Your task to perform on an android device: install app "Facebook Messenger" Image 0: 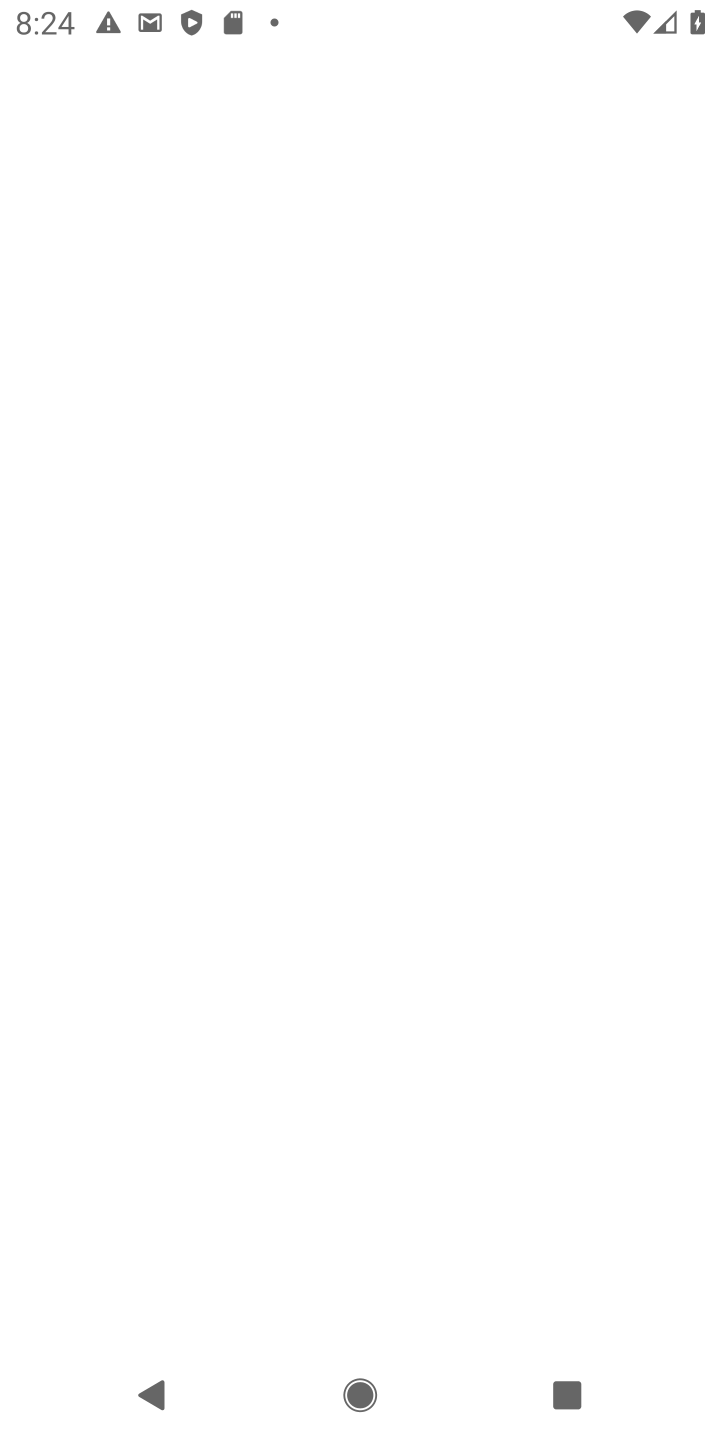
Step 0: press home button
Your task to perform on an android device: install app "Facebook Messenger" Image 1: 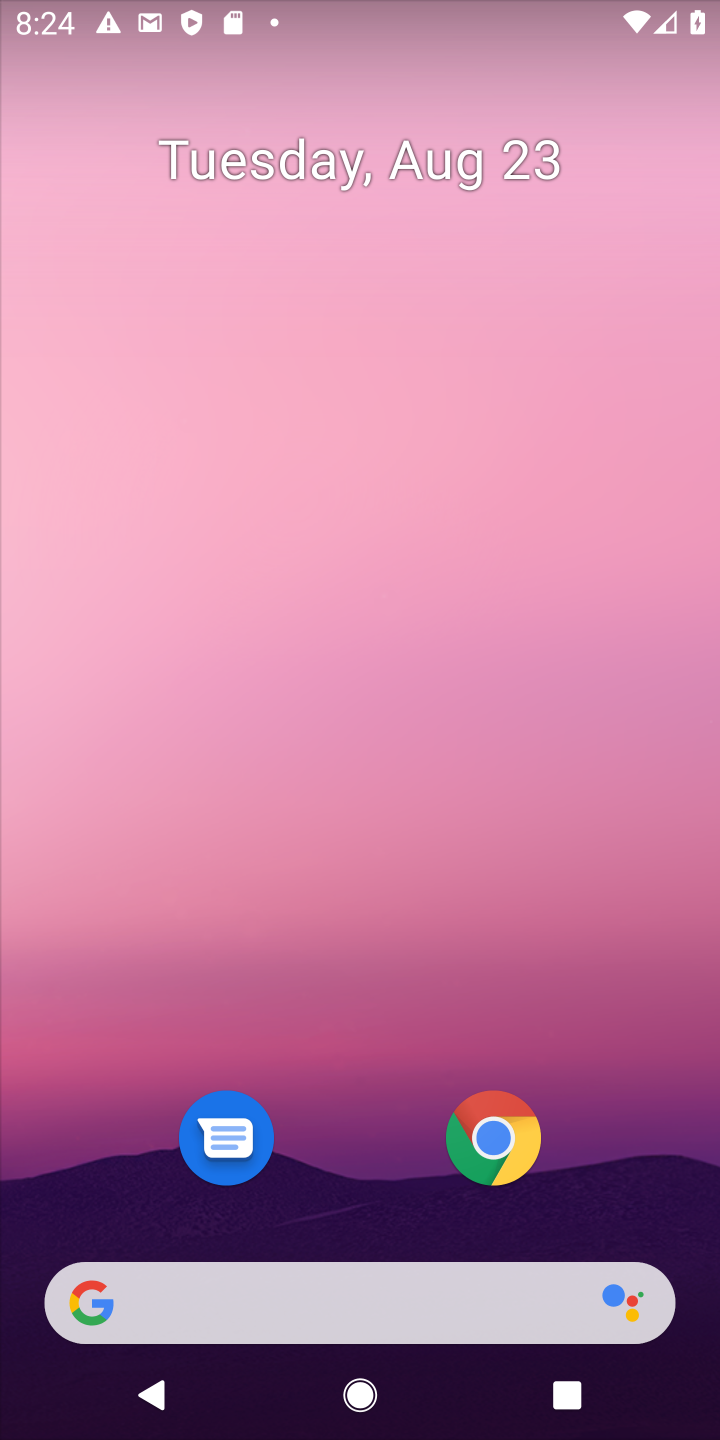
Step 1: drag from (613, 1083) to (647, 113)
Your task to perform on an android device: install app "Facebook Messenger" Image 2: 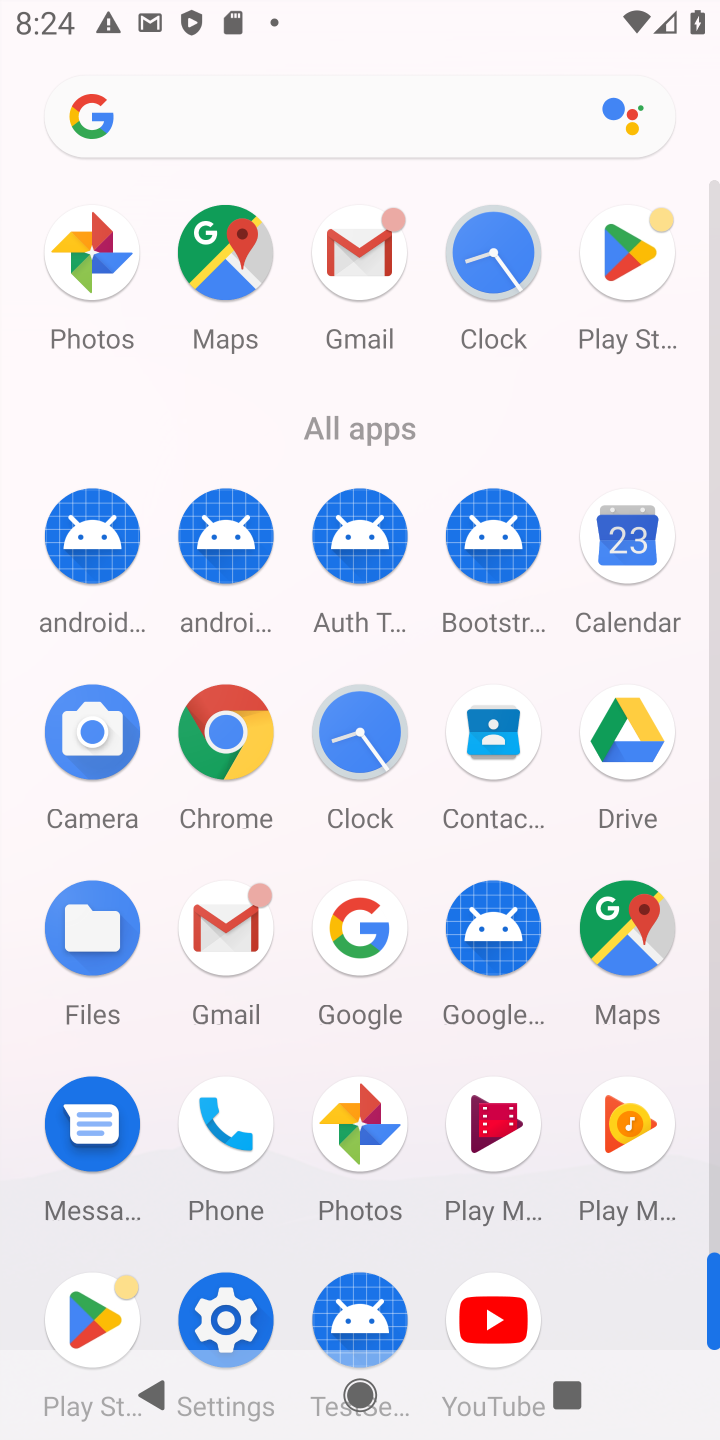
Step 2: click (625, 242)
Your task to perform on an android device: install app "Facebook Messenger" Image 3: 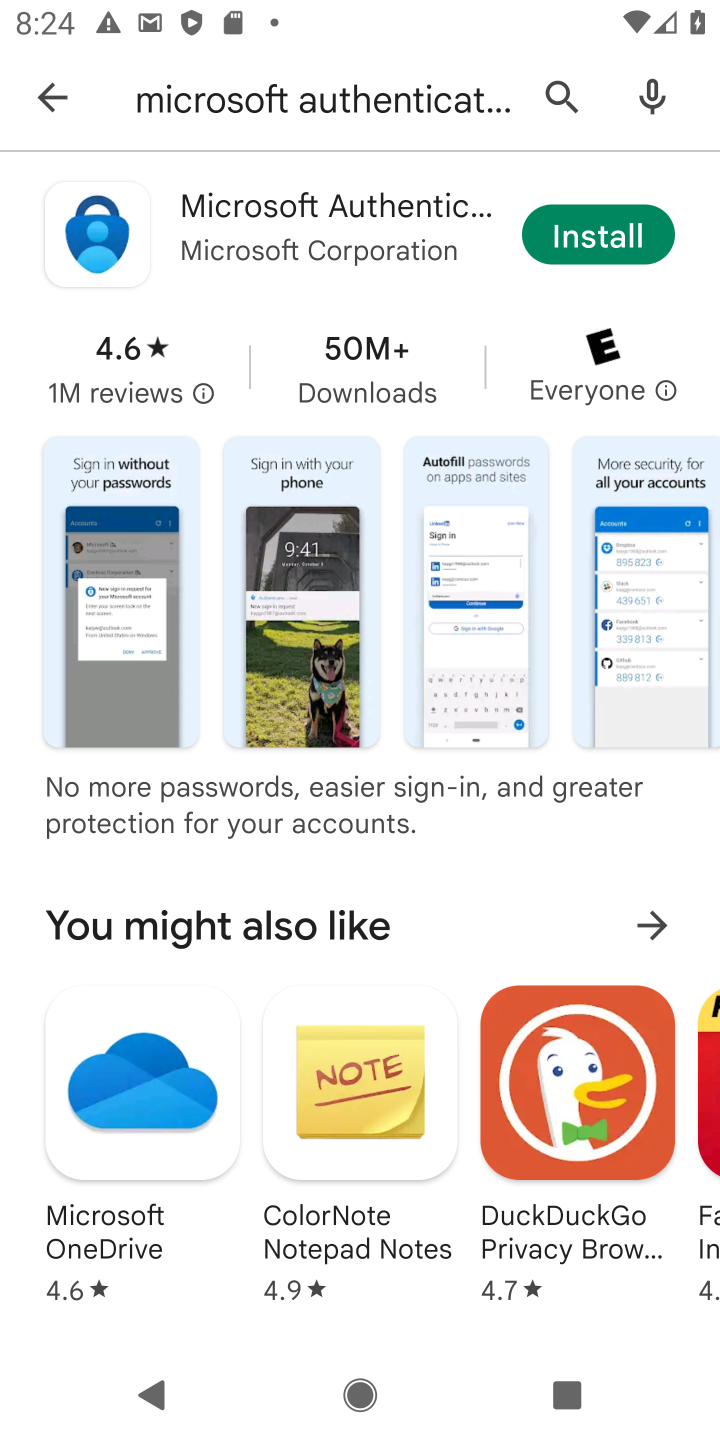
Step 3: press back button
Your task to perform on an android device: install app "Facebook Messenger" Image 4: 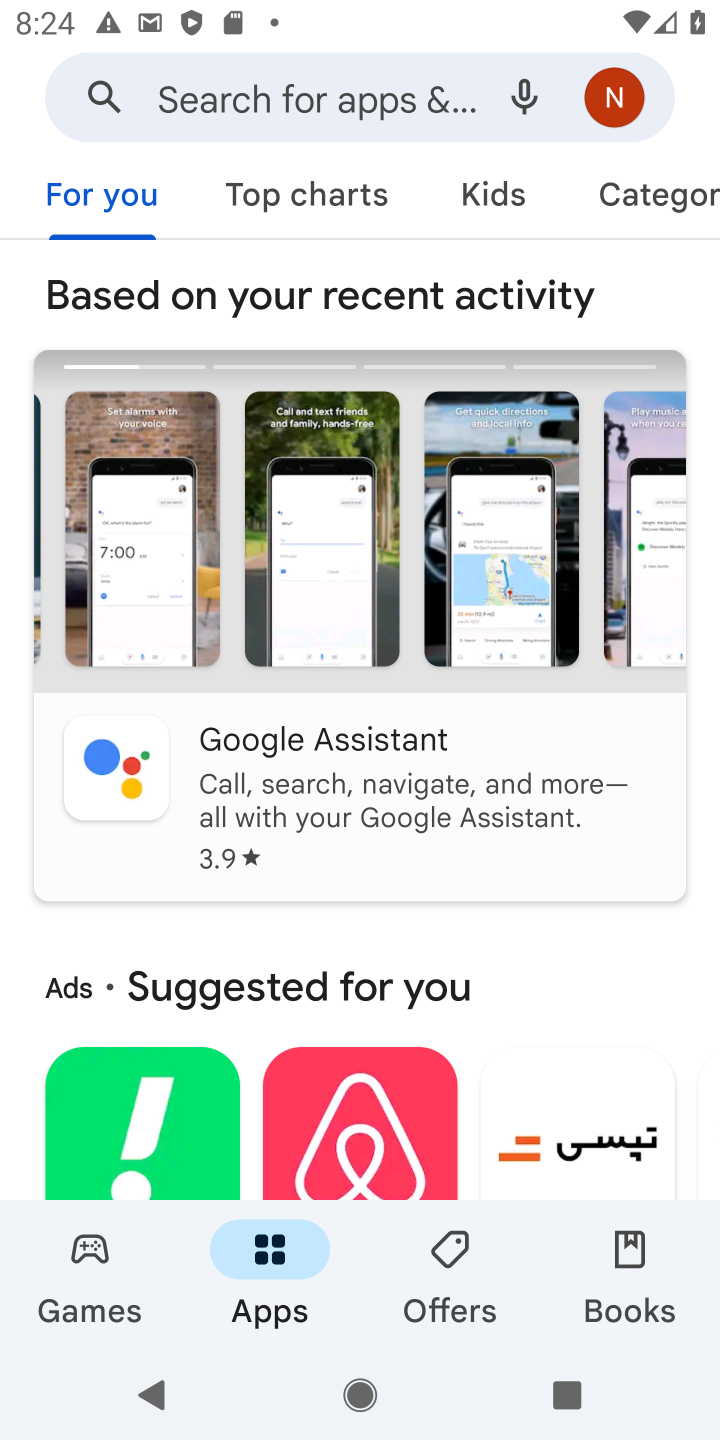
Step 4: click (317, 100)
Your task to perform on an android device: install app "Facebook Messenger" Image 5: 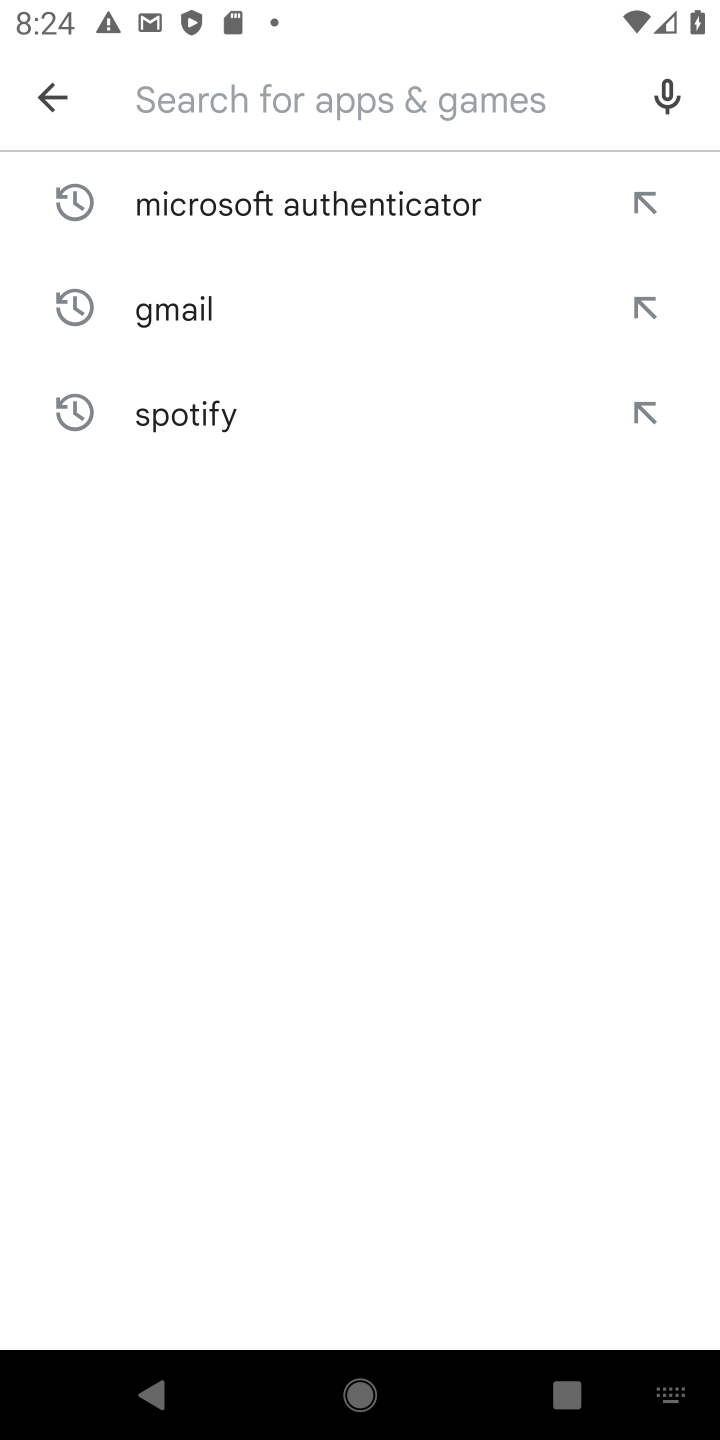
Step 5: type "Facebook Messenger"
Your task to perform on an android device: install app "Facebook Messenger" Image 6: 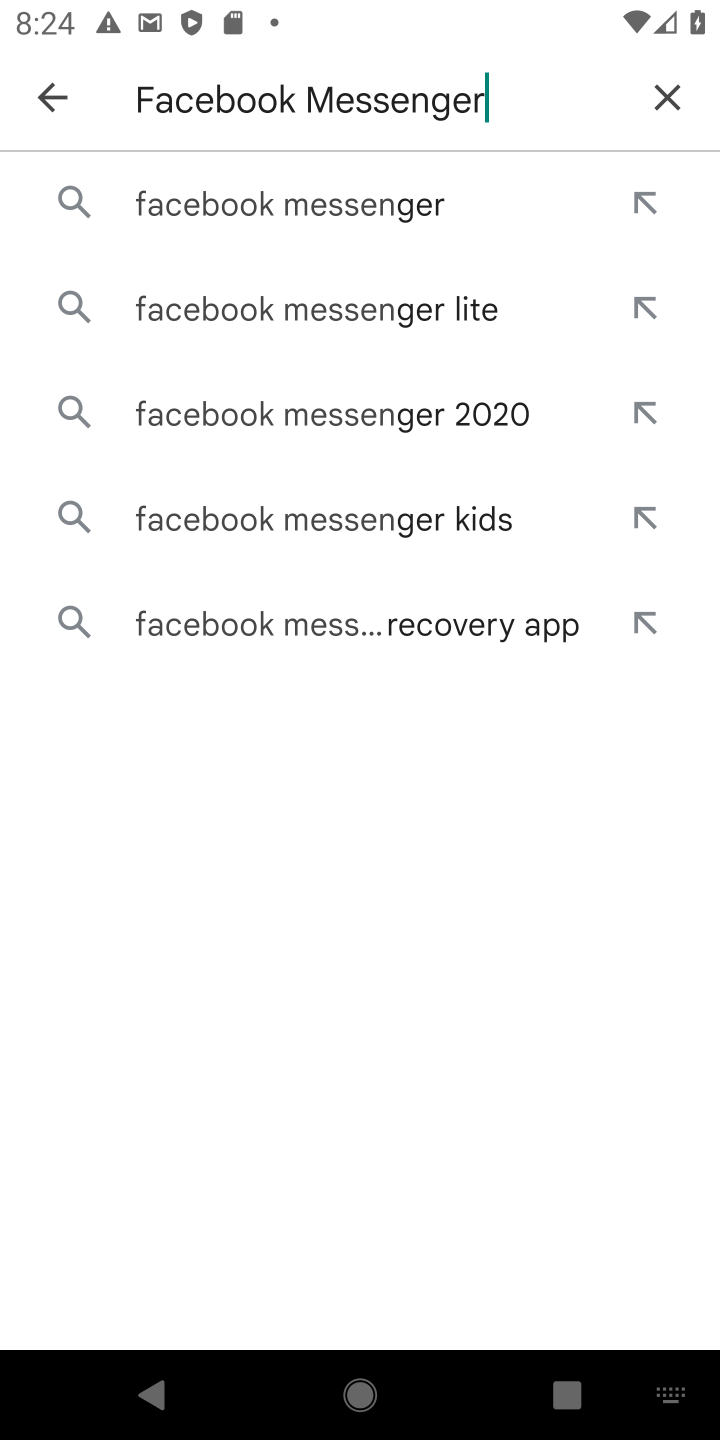
Step 6: press enter
Your task to perform on an android device: install app "Facebook Messenger" Image 7: 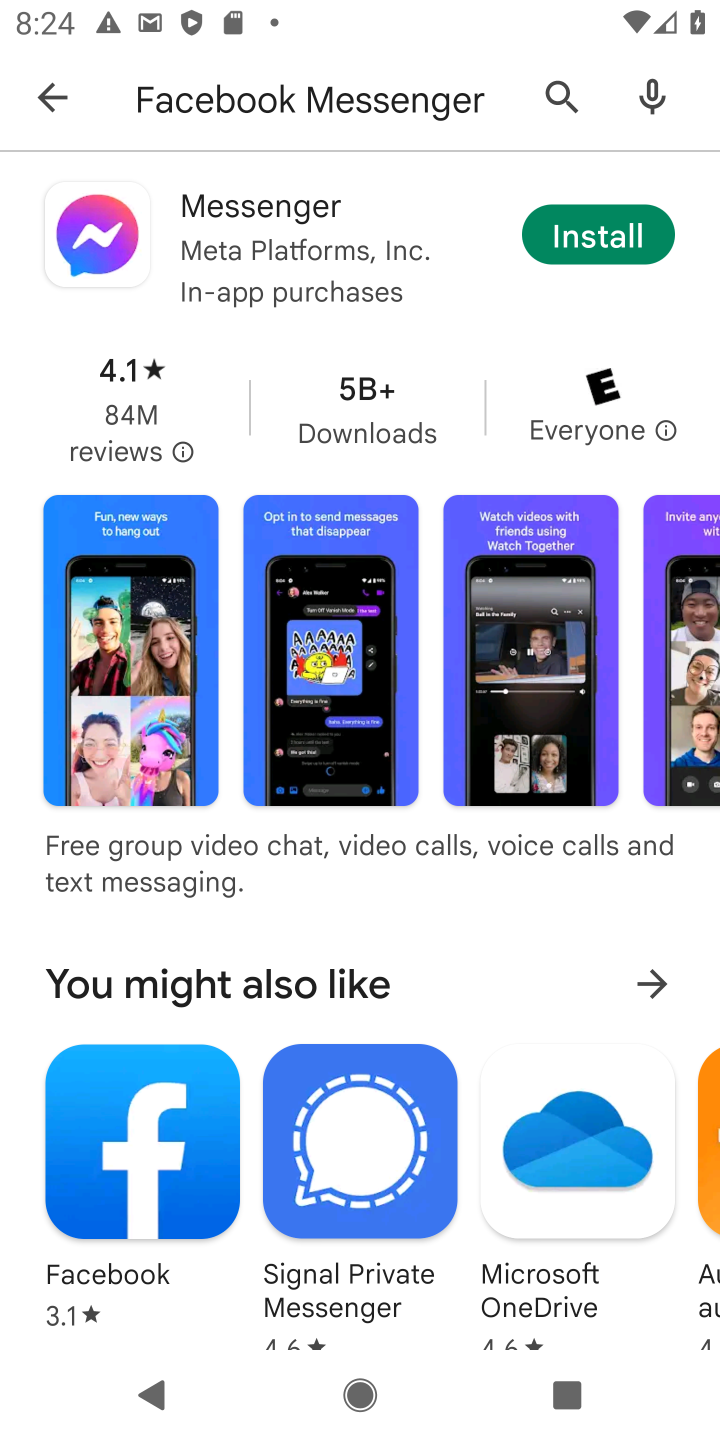
Step 7: click (587, 246)
Your task to perform on an android device: install app "Facebook Messenger" Image 8: 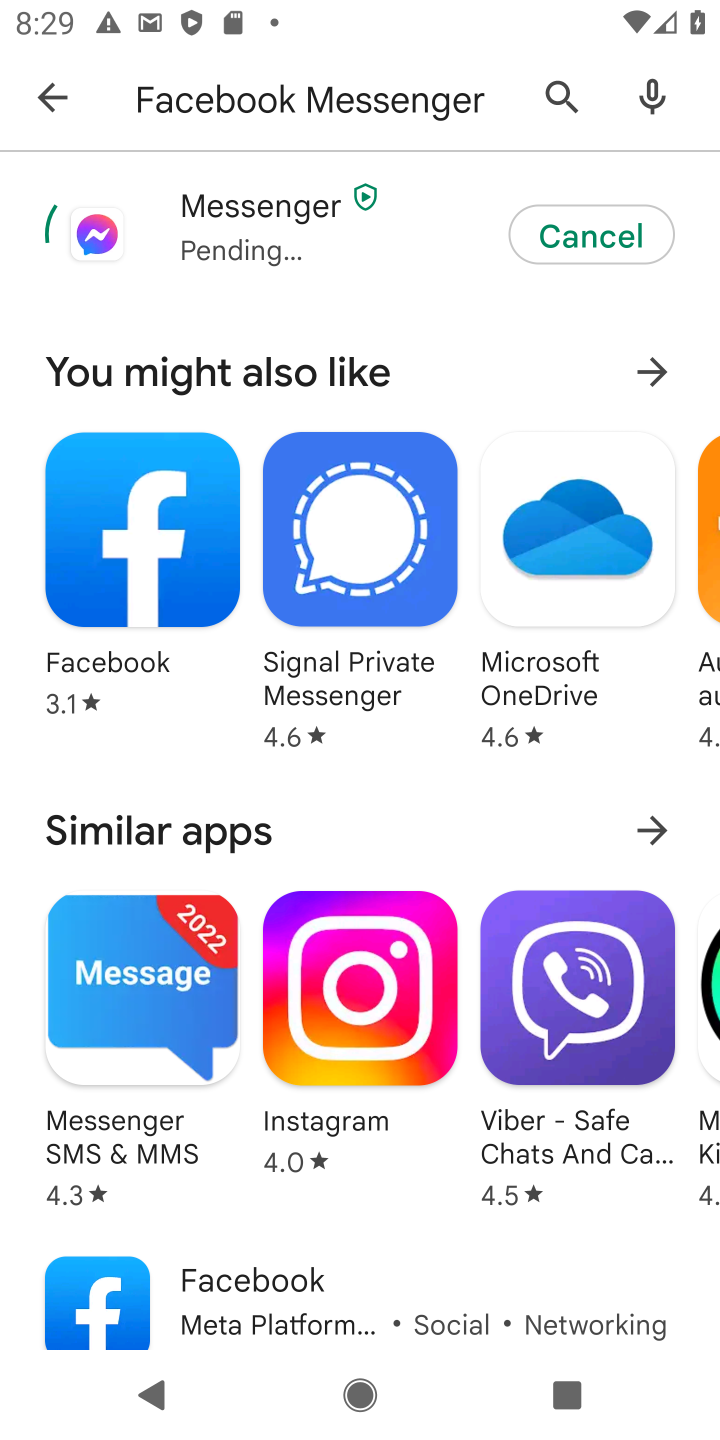
Step 8: task complete